Your task to perform on an android device: open a new tab in the chrome app Image 0: 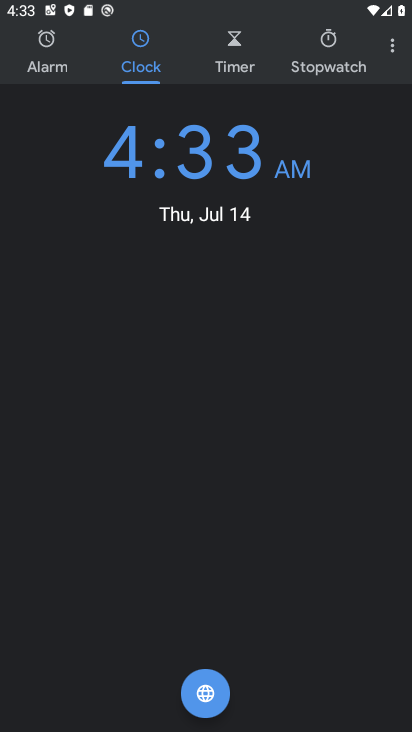
Step 0: press home button
Your task to perform on an android device: open a new tab in the chrome app Image 1: 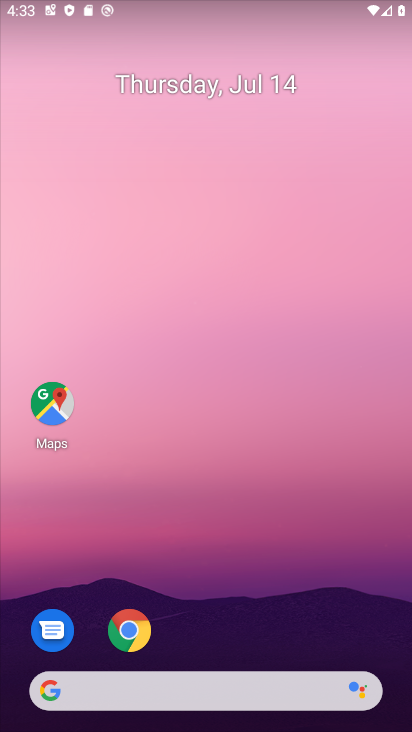
Step 1: click (126, 622)
Your task to perform on an android device: open a new tab in the chrome app Image 2: 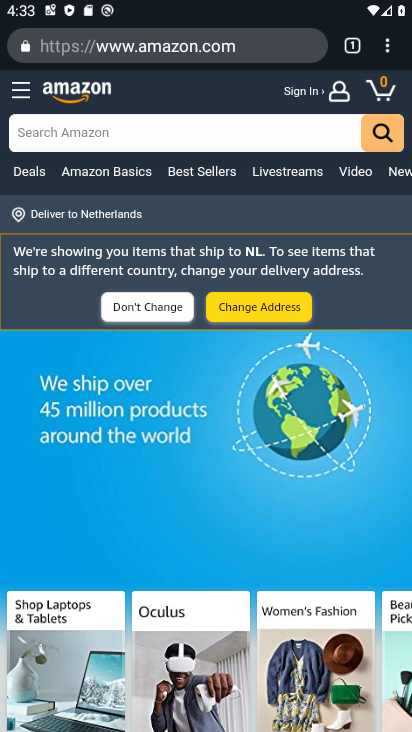
Step 2: click (377, 51)
Your task to perform on an android device: open a new tab in the chrome app Image 3: 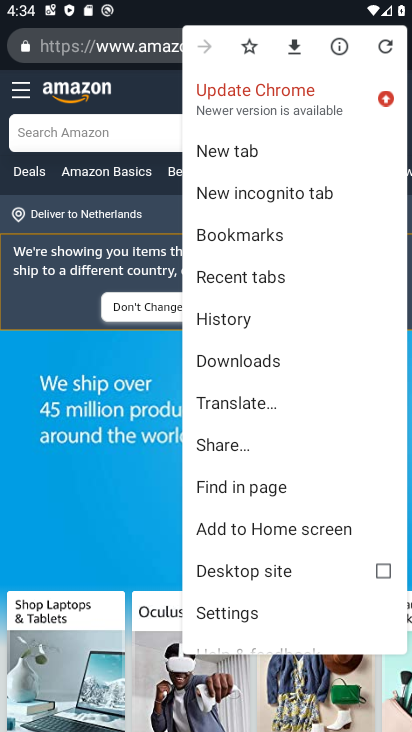
Step 3: click (227, 153)
Your task to perform on an android device: open a new tab in the chrome app Image 4: 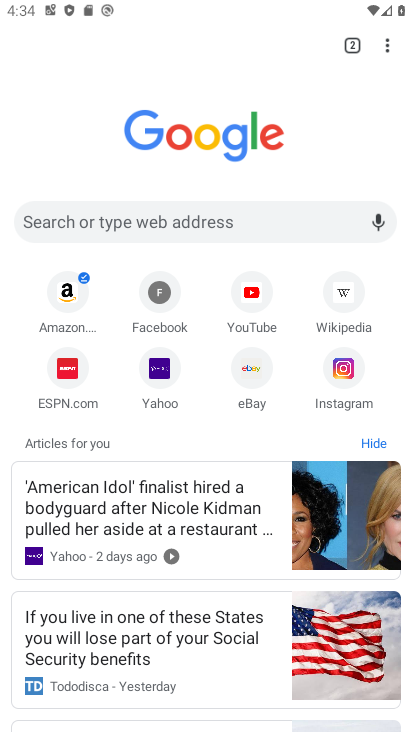
Step 4: task complete